Your task to perform on an android device: Go to accessibility settings Image 0: 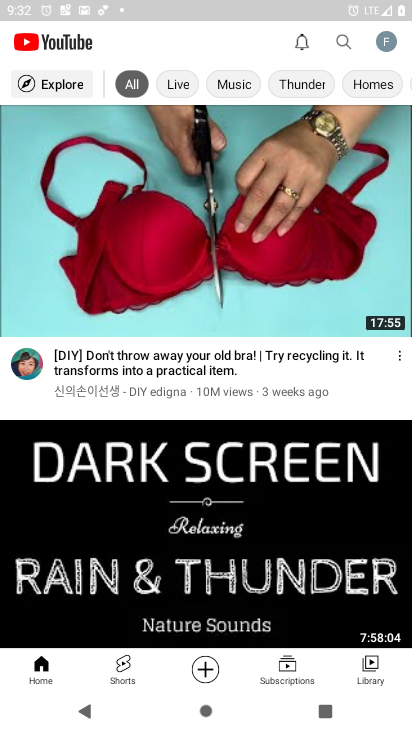
Step 0: press home button
Your task to perform on an android device: Go to accessibility settings Image 1: 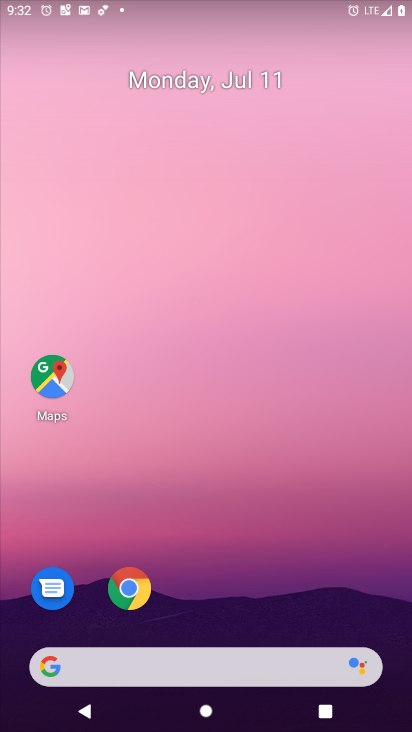
Step 1: drag from (203, 681) to (261, 17)
Your task to perform on an android device: Go to accessibility settings Image 2: 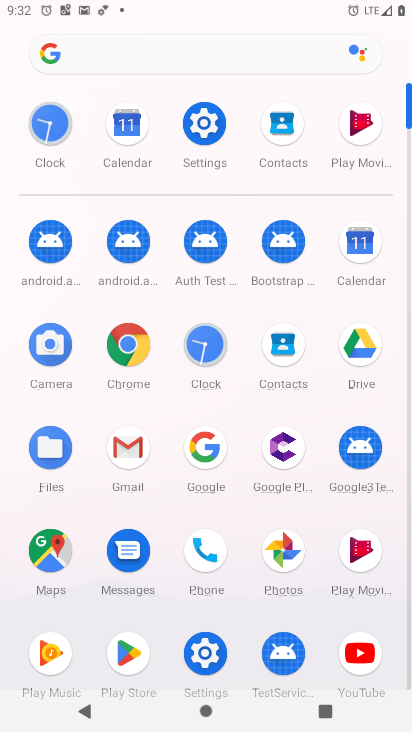
Step 2: click (206, 122)
Your task to perform on an android device: Go to accessibility settings Image 3: 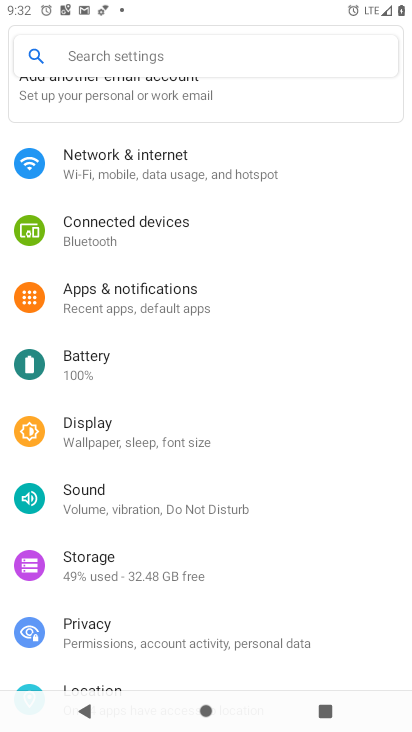
Step 3: drag from (277, 659) to (323, 61)
Your task to perform on an android device: Go to accessibility settings Image 4: 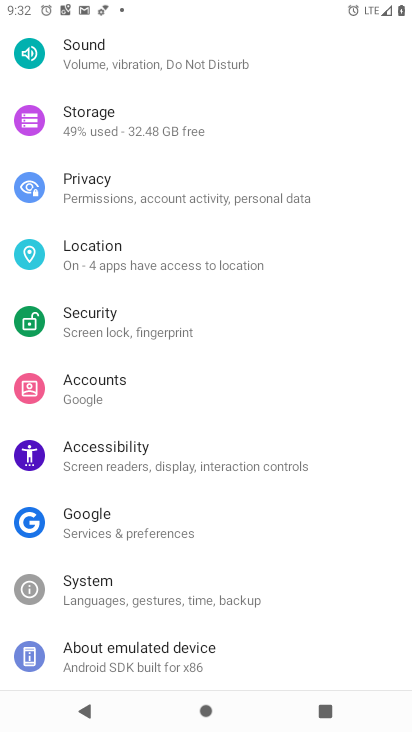
Step 4: click (123, 439)
Your task to perform on an android device: Go to accessibility settings Image 5: 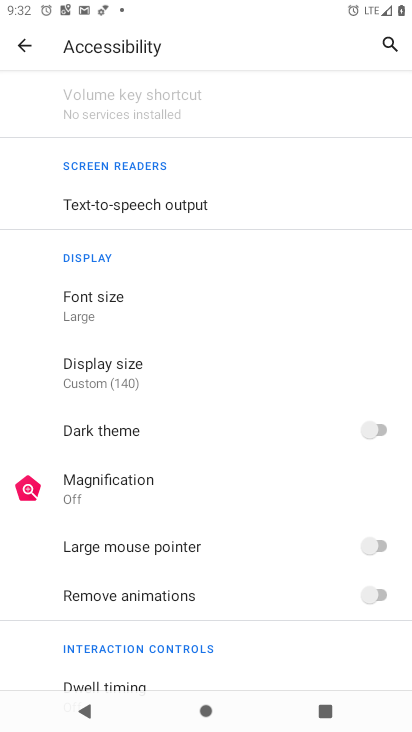
Step 5: task complete